Your task to perform on an android device: Add usb-c to usb-a to the cart on newegg Image 0: 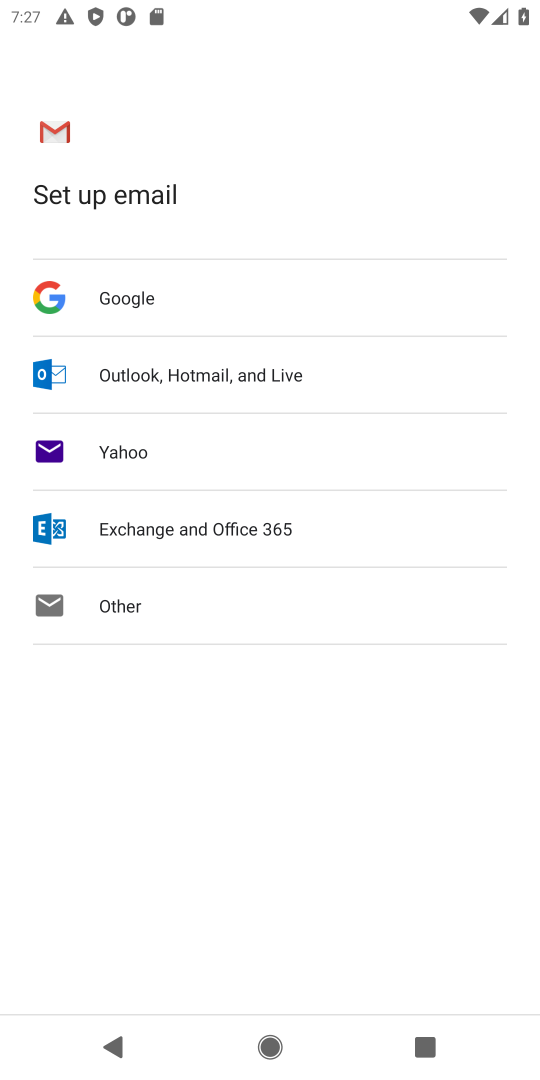
Step 0: press home button
Your task to perform on an android device: Add usb-c to usb-a to the cart on newegg Image 1: 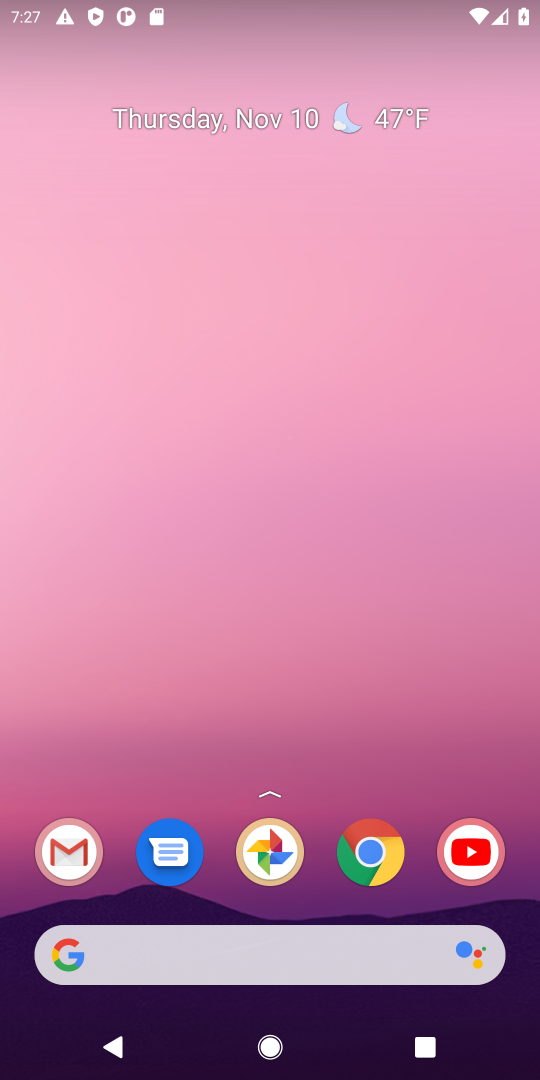
Step 1: click (373, 860)
Your task to perform on an android device: Add usb-c to usb-a to the cart on newegg Image 2: 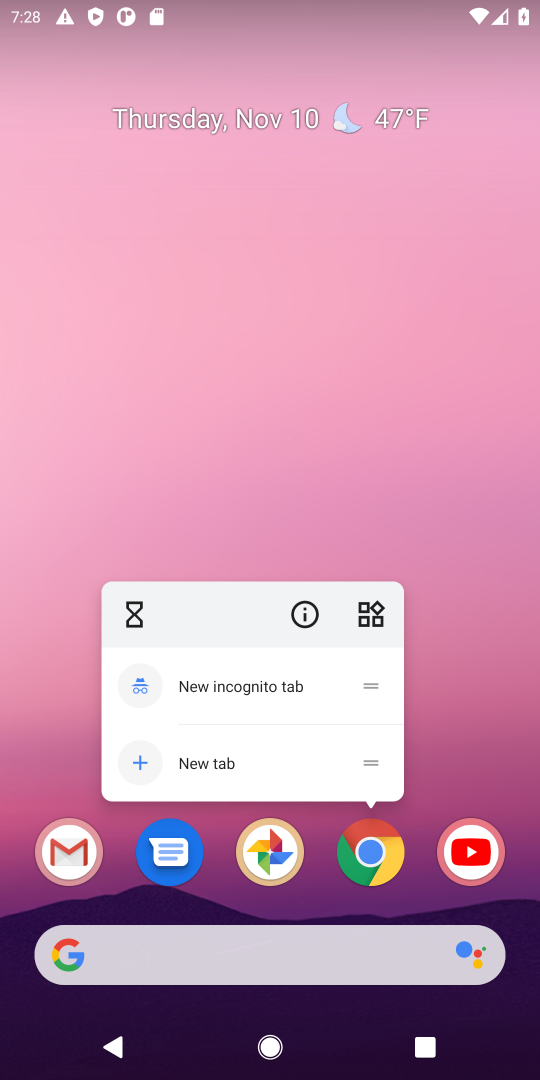
Step 2: click (374, 861)
Your task to perform on an android device: Add usb-c to usb-a to the cart on newegg Image 3: 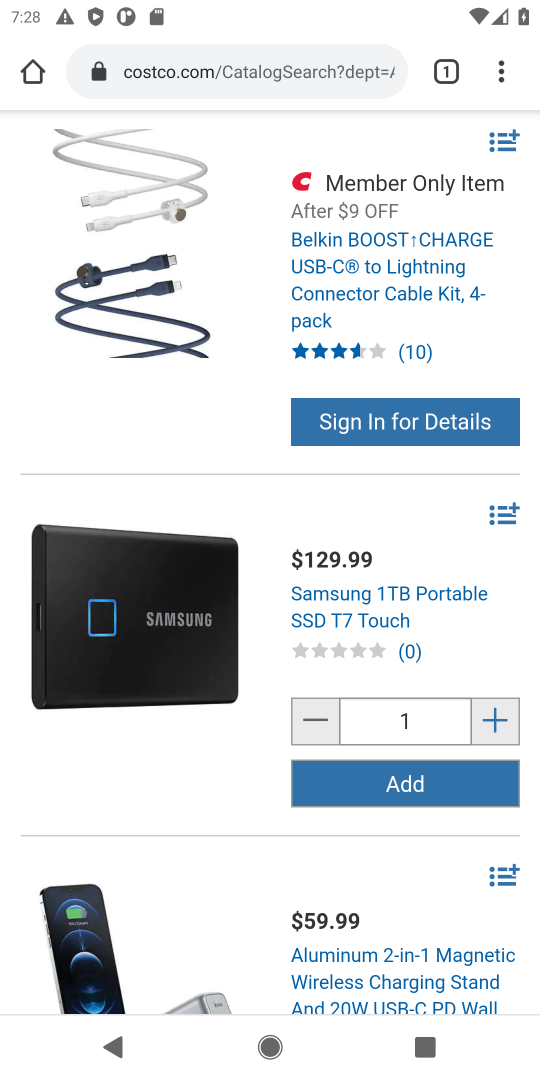
Step 3: click (325, 62)
Your task to perform on an android device: Add usb-c to usb-a to the cart on newegg Image 4: 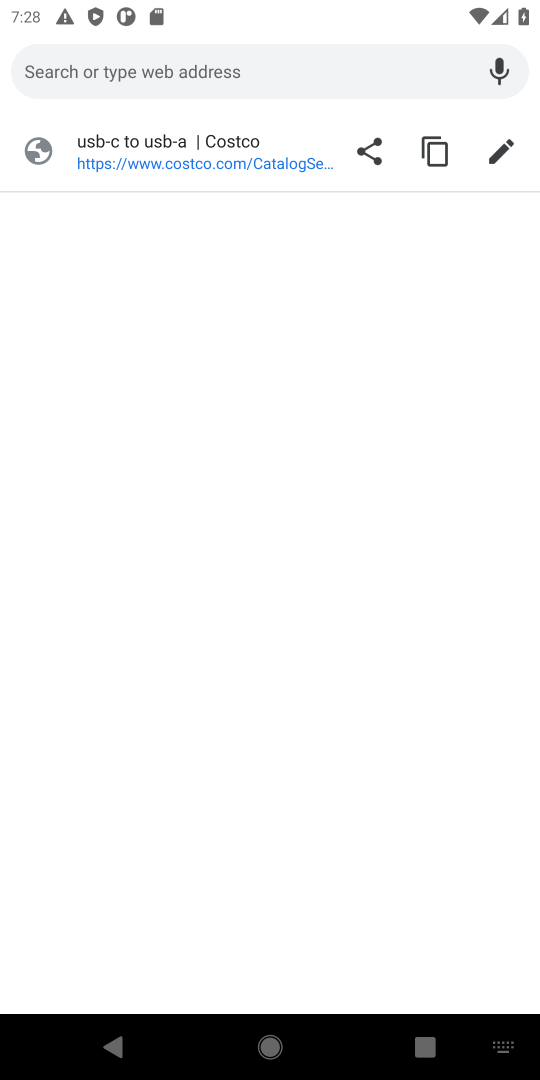
Step 4: type "newegg"
Your task to perform on an android device: Add usb-c to usb-a to the cart on newegg Image 5: 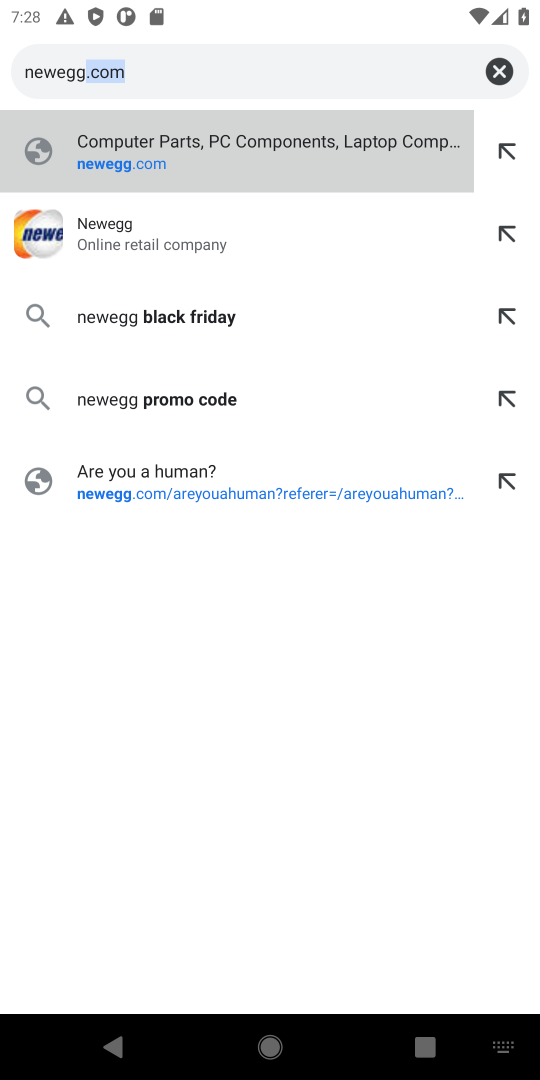
Step 5: press enter
Your task to perform on an android device: Add usb-c to usb-a to the cart on newegg Image 6: 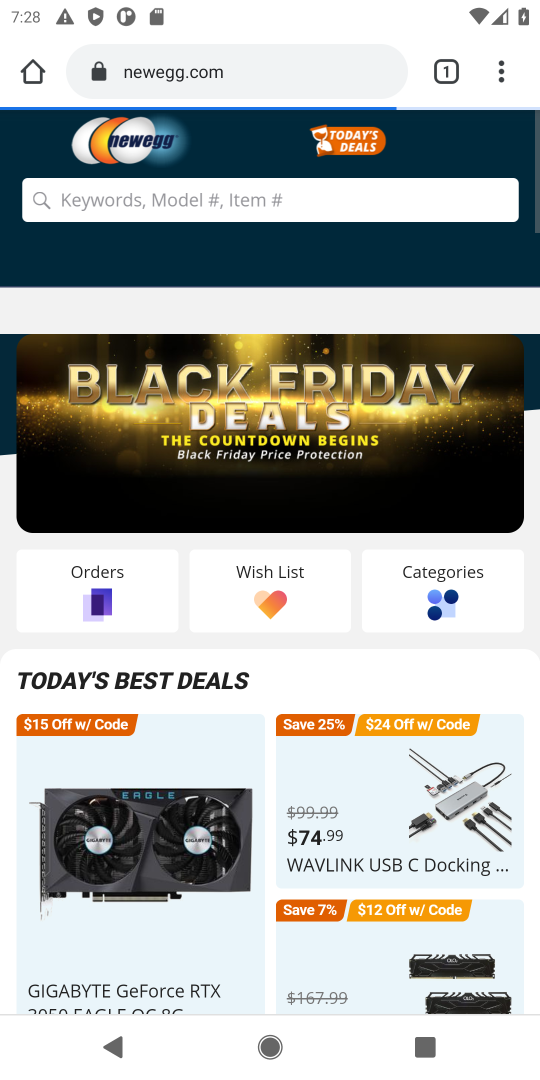
Step 6: click (316, 201)
Your task to perform on an android device: Add usb-c to usb-a to the cart on newegg Image 7: 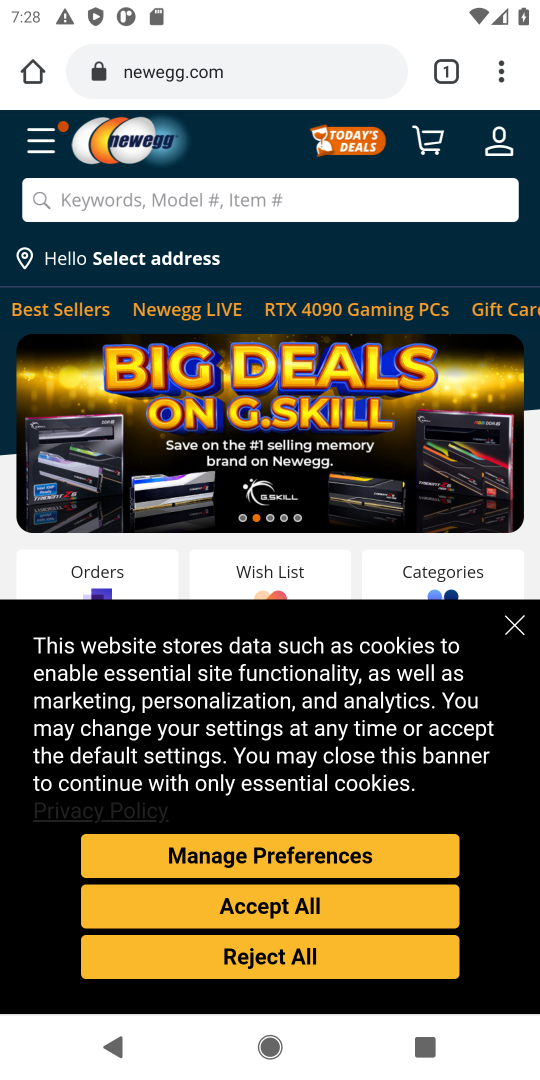
Step 7: click (308, 195)
Your task to perform on an android device: Add usb-c to usb-a to the cart on newegg Image 8: 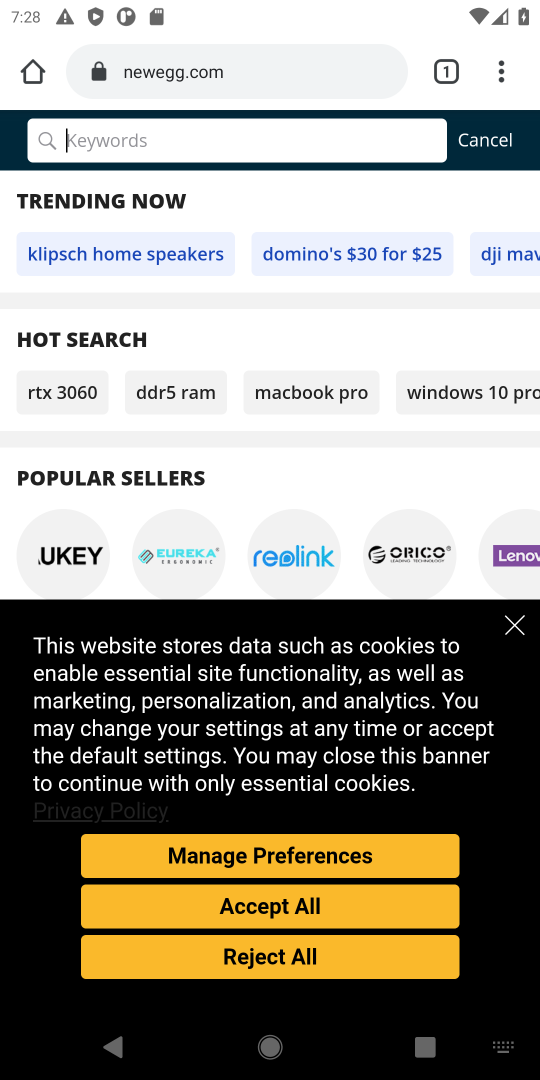
Step 8: click (515, 628)
Your task to perform on an android device: Add usb-c to usb-a to the cart on newegg Image 9: 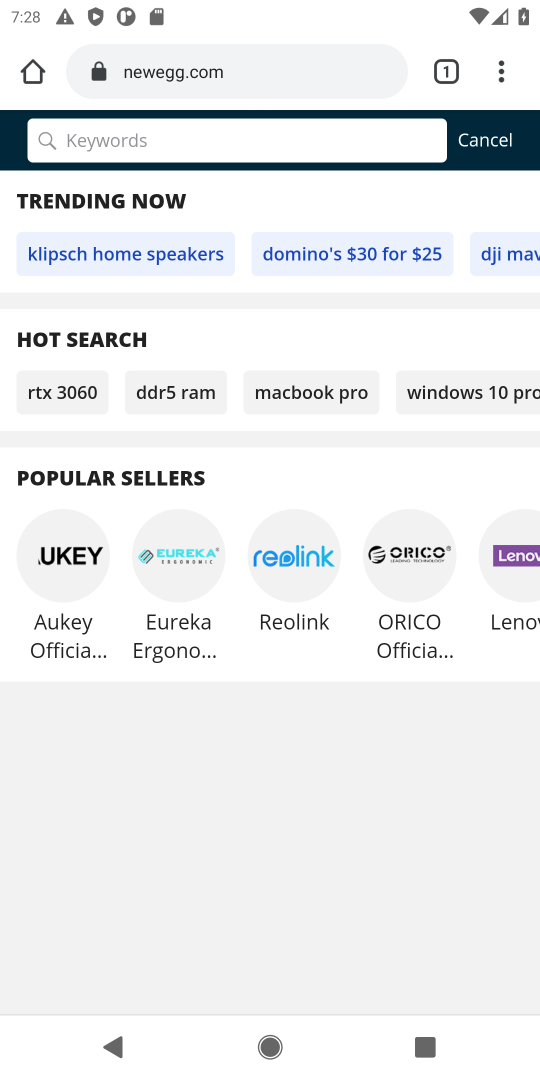
Step 9: click (181, 131)
Your task to perform on an android device: Add usb-c to usb-a to the cart on newegg Image 10: 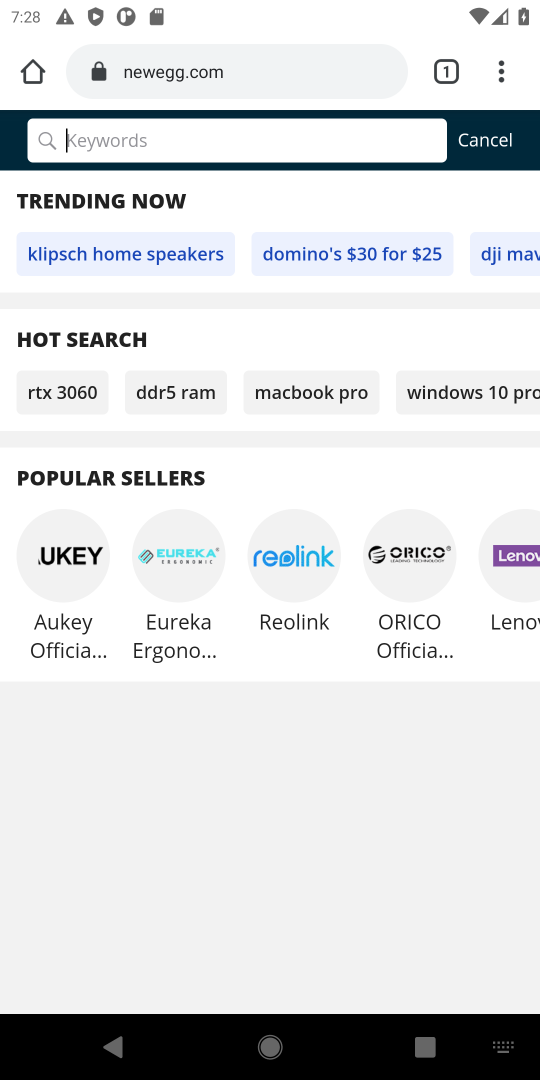
Step 10: type "usb-c to usb-a"
Your task to perform on an android device: Add usb-c to usb-a to the cart on newegg Image 11: 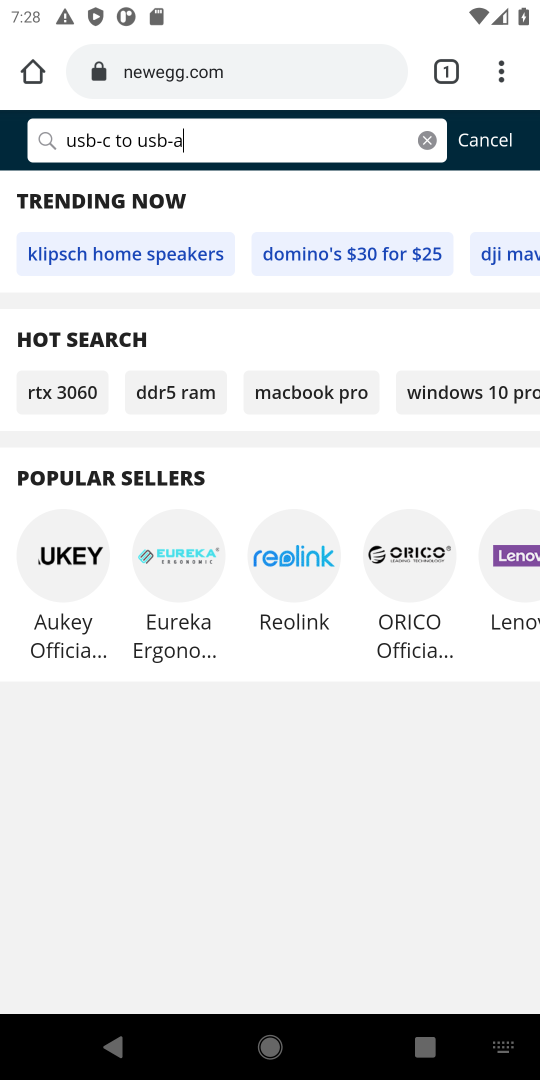
Step 11: press enter
Your task to perform on an android device: Add usb-c to usb-a to the cart on newegg Image 12: 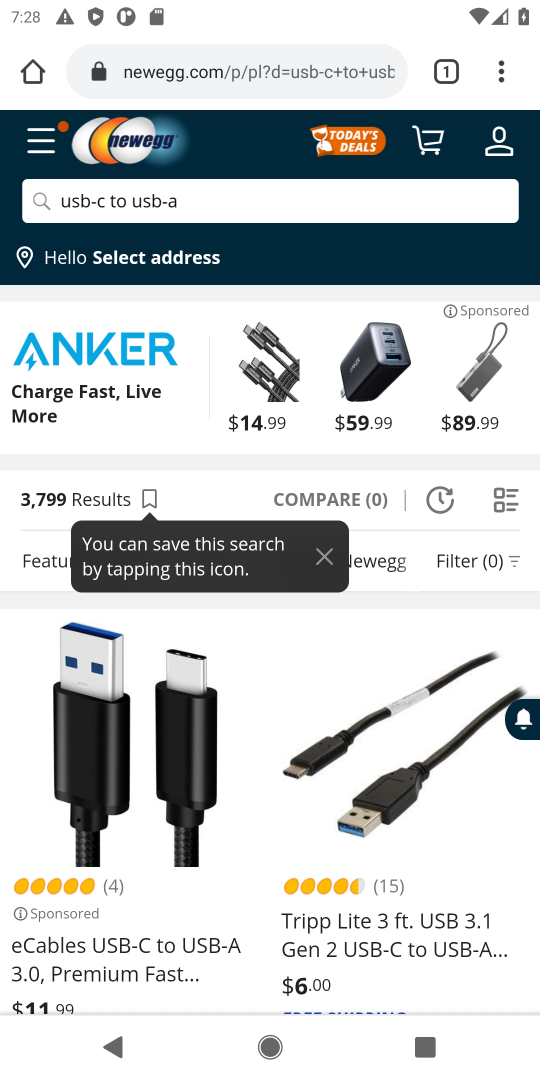
Step 12: drag from (333, 877) to (338, 626)
Your task to perform on an android device: Add usb-c to usb-a to the cart on newegg Image 13: 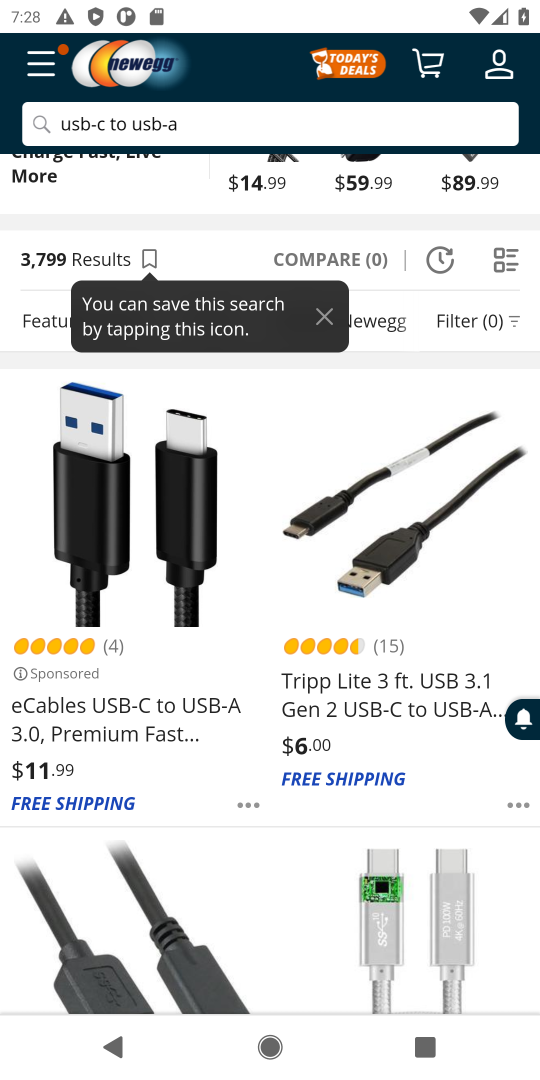
Step 13: click (135, 713)
Your task to perform on an android device: Add usb-c to usb-a to the cart on newegg Image 14: 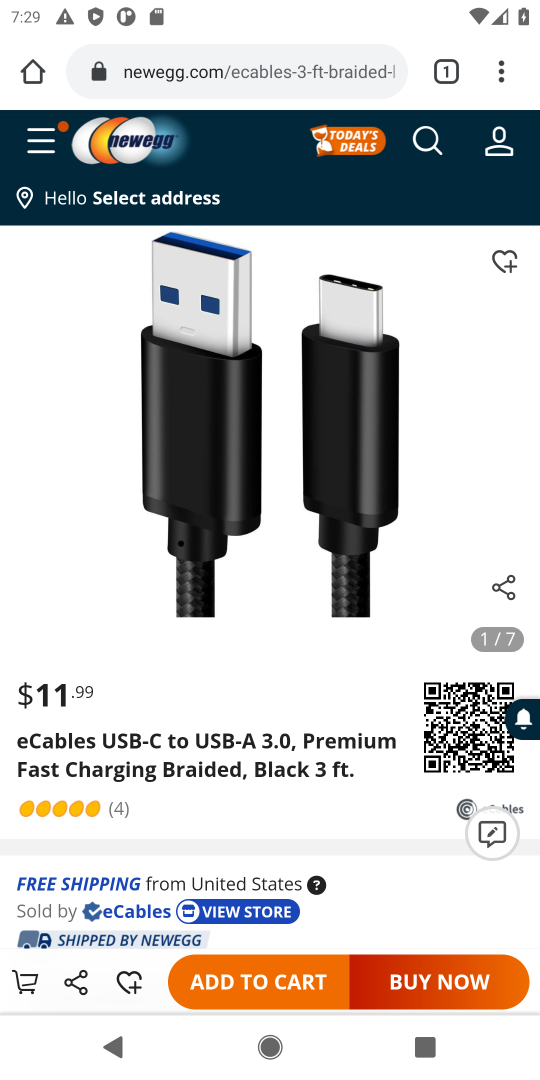
Step 14: click (261, 983)
Your task to perform on an android device: Add usb-c to usb-a to the cart on newegg Image 15: 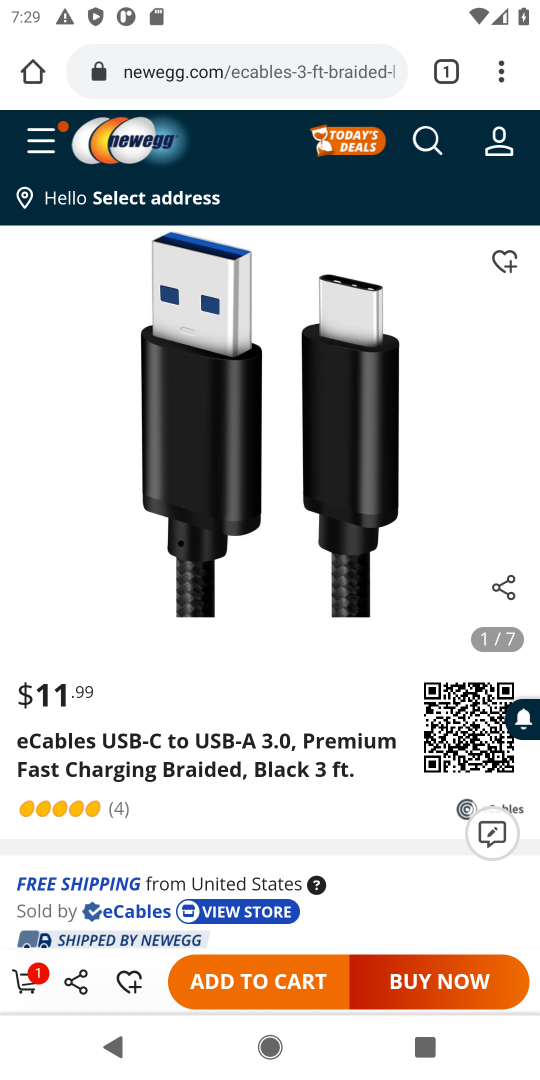
Step 15: click (31, 970)
Your task to perform on an android device: Add usb-c to usb-a to the cart on newegg Image 16: 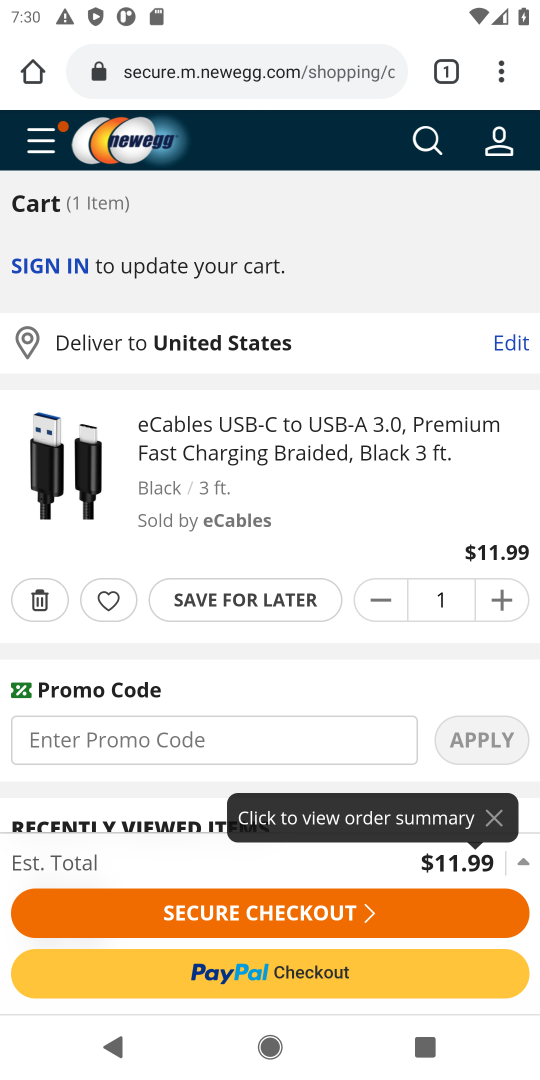
Step 16: task complete